Your task to perform on an android device: Open Google Maps and go to "Timeline" Image 0: 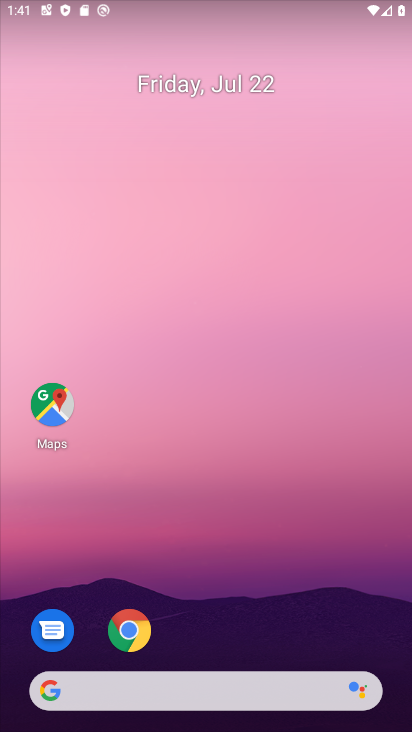
Step 0: drag from (185, 633) to (85, 448)
Your task to perform on an android device: Open Google Maps and go to "Timeline" Image 1: 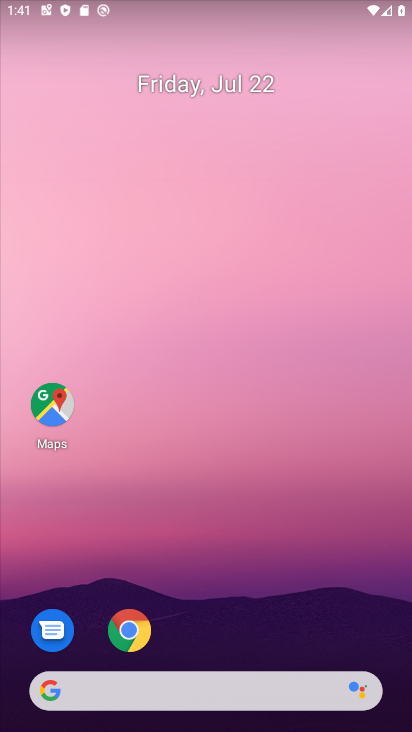
Step 1: click (43, 412)
Your task to perform on an android device: Open Google Maps and go to "Timeline" Image 2: 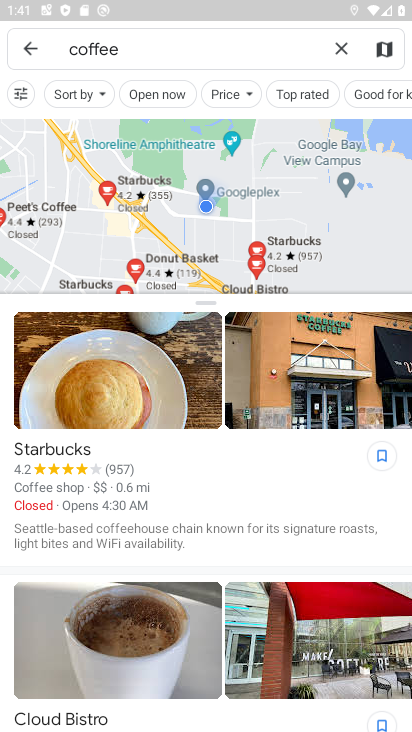
Step 2: click (30, 55)
Your task to perform on an android device: Open Google Maps and go to "Timeline" Image 3: 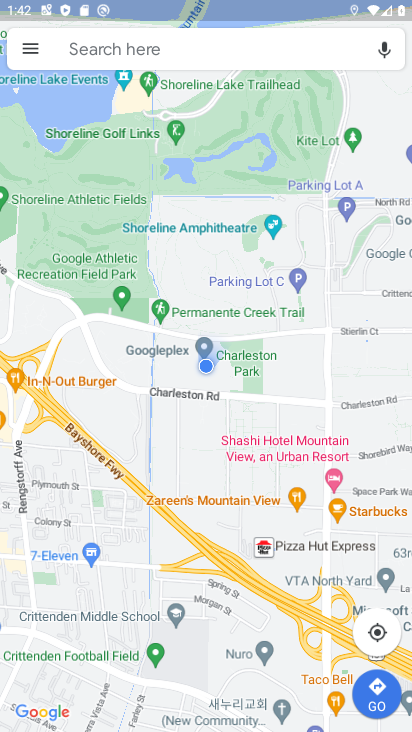
Step 3: click (30, 55)
Your task to perform on an android device: Open Google Maps and go to "Timeline" Image 4: 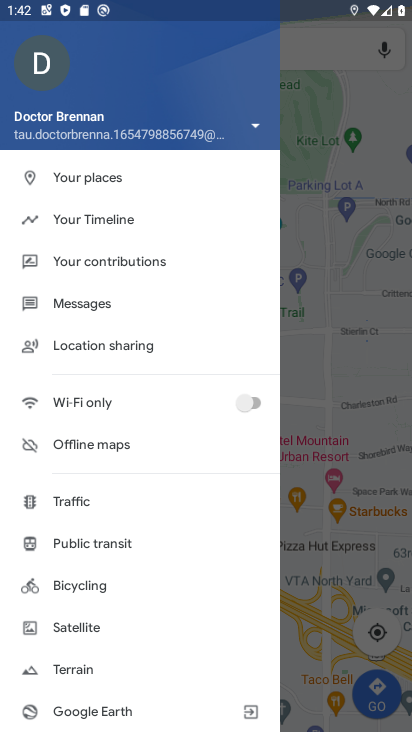
Step 4: click (74, 211)
Your task to perform on an android device: Open Google Maps and go to "Timeline" Image 5: 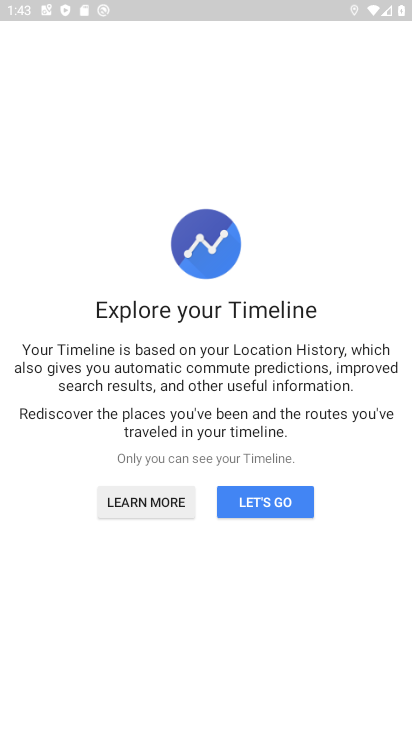
Step 5: click (288, 505)
Your task to perform on an android device: Open Google Maps and go to "Timeline" Image 6: 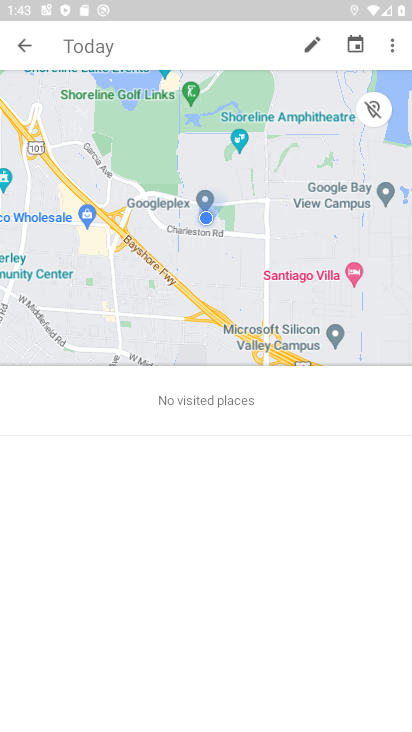
Step 6: task complete